Your task to perform on an android device: toggle data saver in the chrome app Image 0: 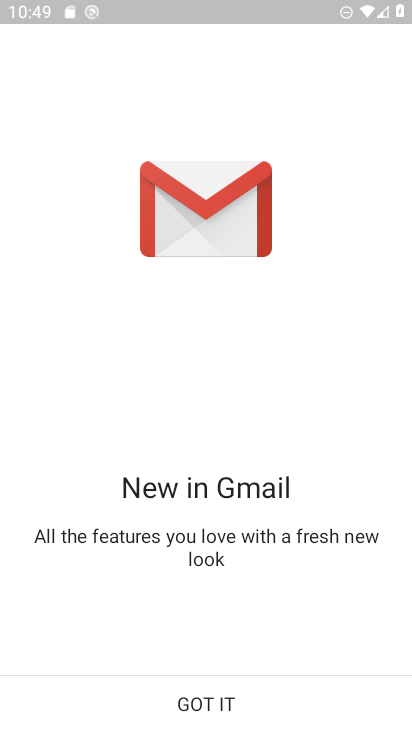
Step 0: press home button
Your task to perform on an android device: toggle data saver in the chrome app Image 1: 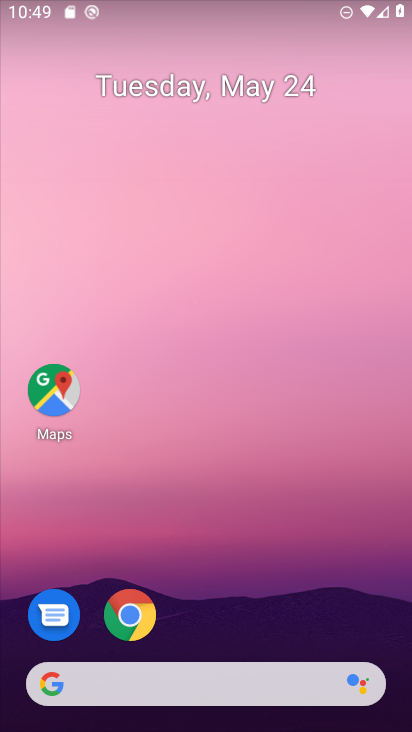
Step 1: drag from (247, 704) to (406, 98)
Your task to perform on an android device: toggle data saver in the chrome app Image 2: 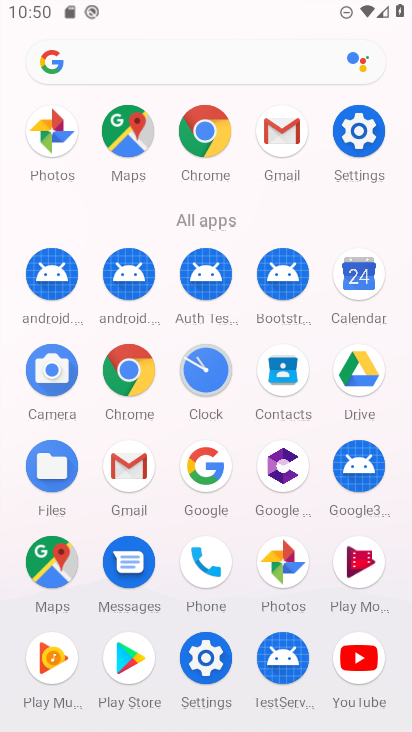
Step 2: click (187, 129)
Your task to perform on an android device: toggle data saver in the chrome app Image 3: 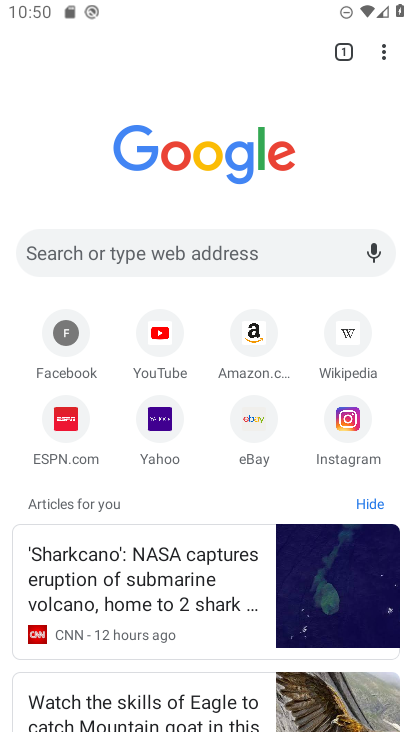
Step 3: click (388, 57)
Your task to perform on an android device: toggle data saver in the chrome app Image 4: 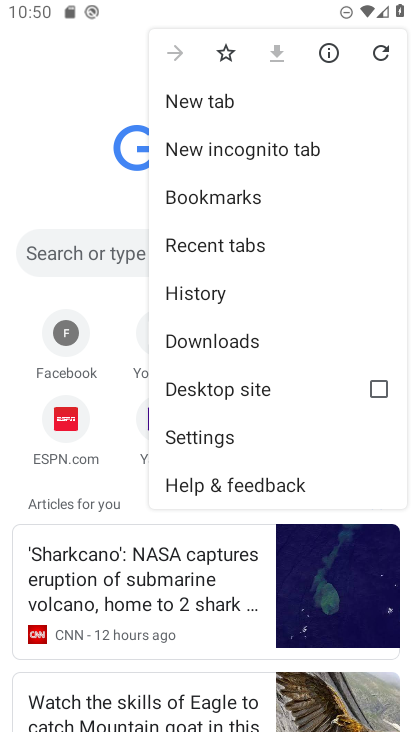
Step 4: click (206, 430)
Your task to perform on an android device: toggle data saver in the chrome app Image 5: 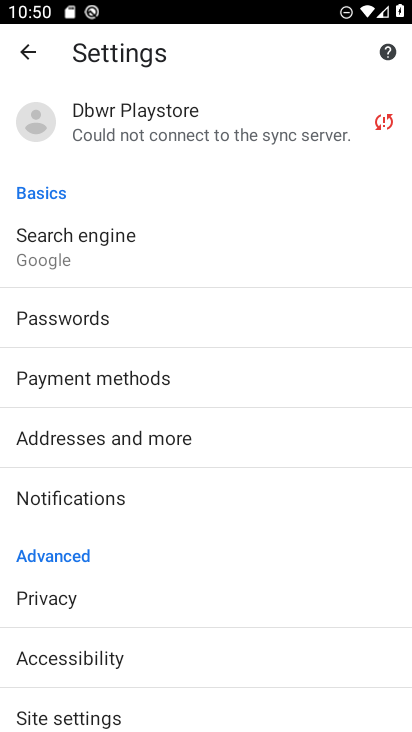
Step 5: drag from (189, 627) to (198, 274)
Your task to perform on an android device: toggle data saver in the chrome app Image 6: 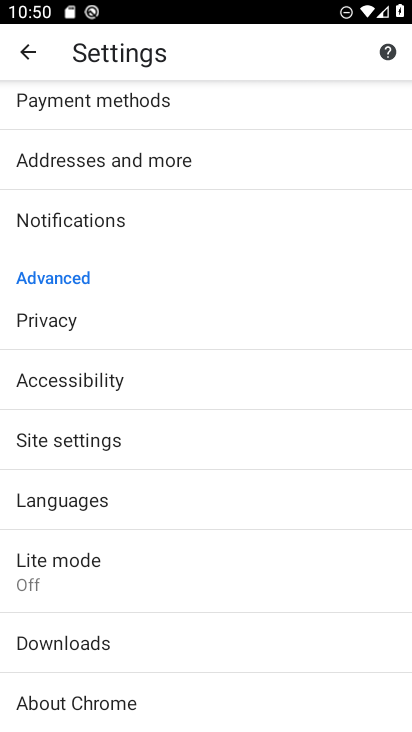
Step 6: click (97, 567)
Your task to perform on an android device: toggle data saver in the chrome app Image 7: 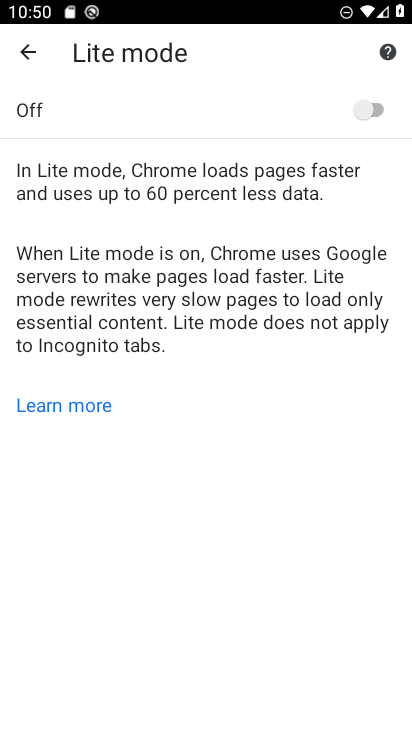
Step 7: task complete